Your task to perform on an android device: change the clock style Image 0: 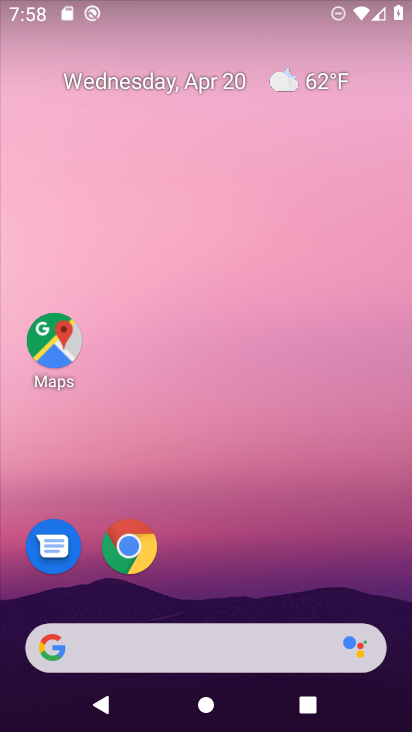
Step 0: drag from (254, 543) to (282, 122)
Your task to perform on an android device: change the clock style Image 1: 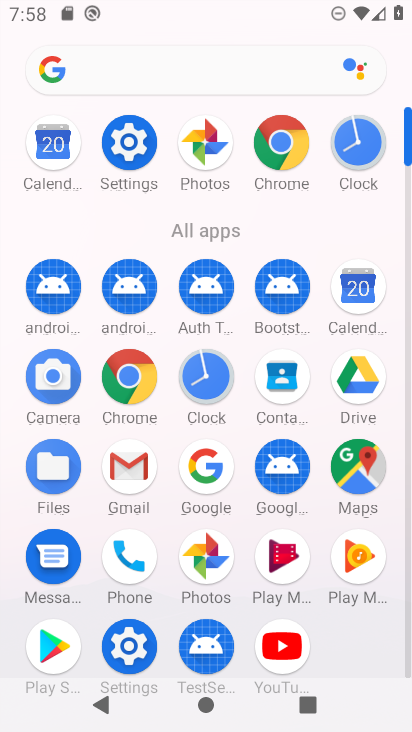
Step 1: click (366, 143)
Your task to perform on an android device: change the clock style Image 2: 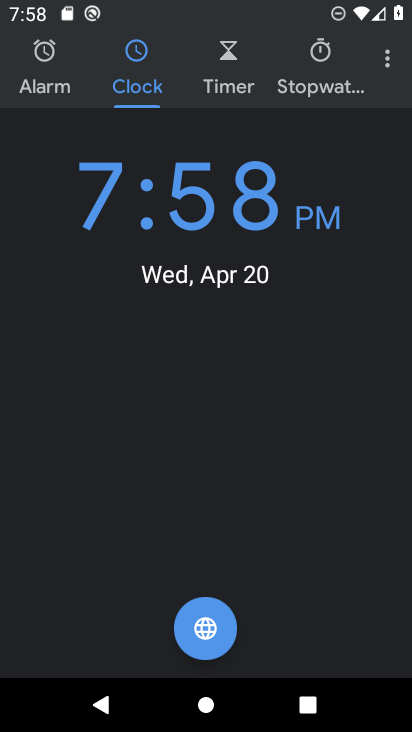
Step 2: click (386, 68)
Your task to perform on an android device: change the clock style Image 3: 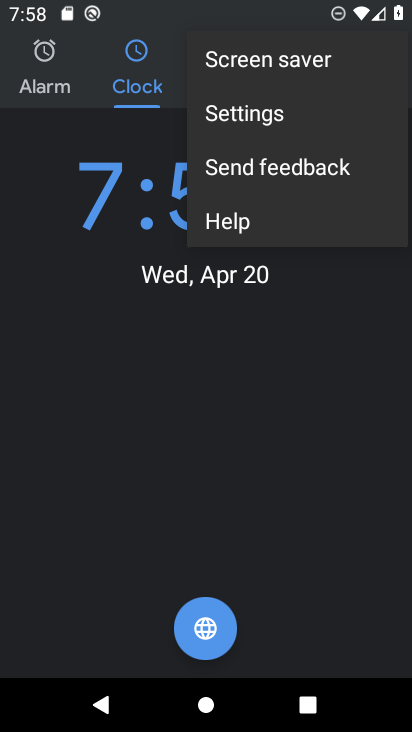
Step 3: click (330, 116)
Your task to perform on an android device: change the clock style Image 4: 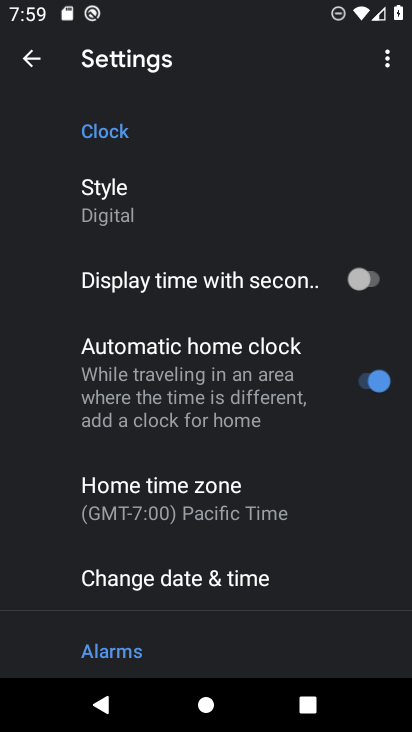
Step 4: click (166, 205)
Your task to perform on an android device: change the clock style Image 5: 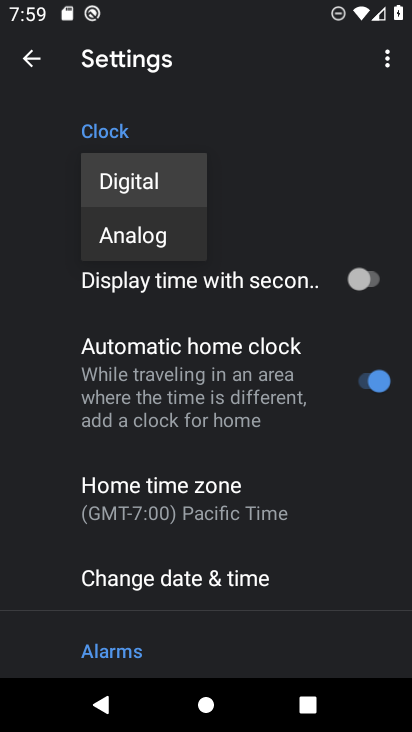
Step 5: click (165, 237)
Your task to perform on an android device: change the clock style Image 6: 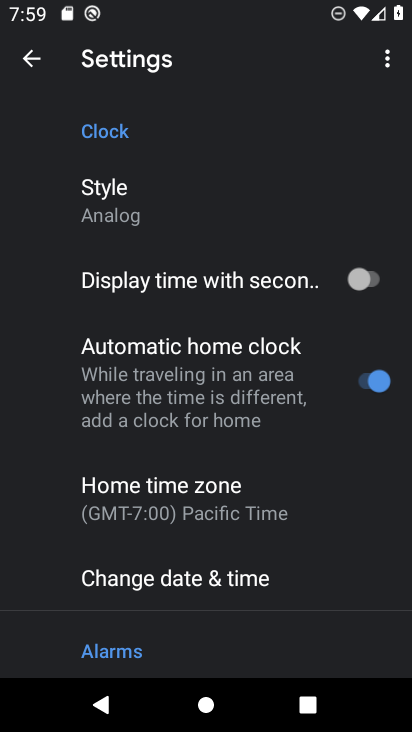
Step 6: click (32, 56)
Your task to perform on an android device: change the clock style Image 7: 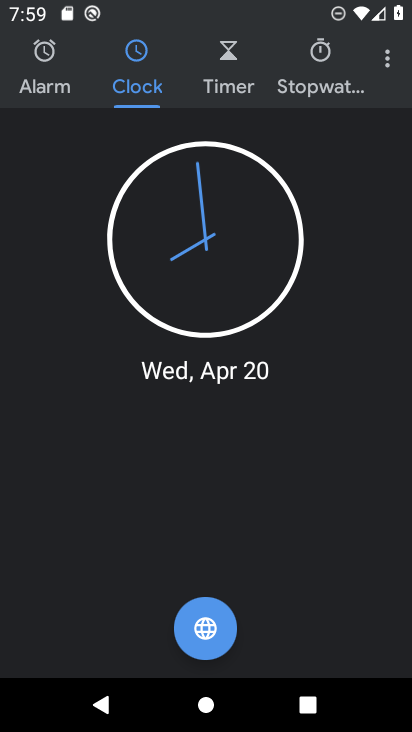
Step 7: task complete